Your task to perform on an android device: Go to network settings Image 0: 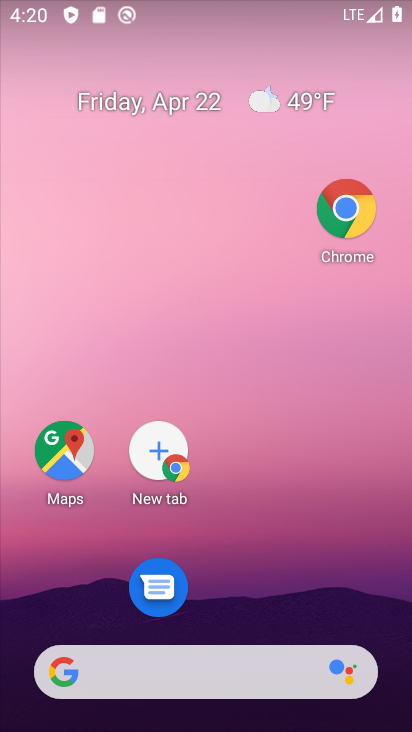
Step 0: drag from (255, 611) to (223, 187)
Your task to perform on an android device: Go to network settings Image 1: 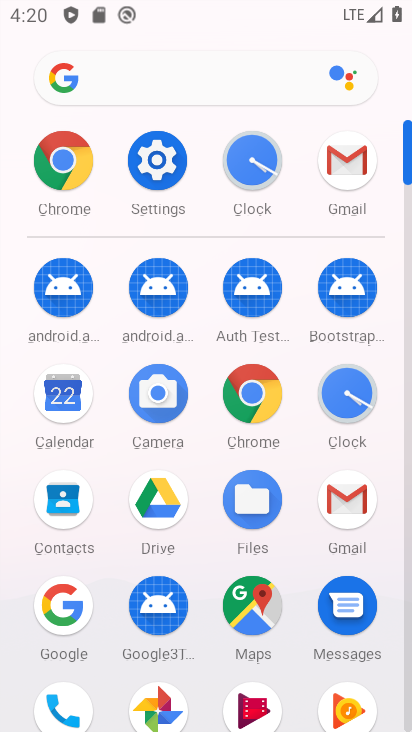
Step 1: click (165, 150)
Your task to perform on an android device: Go to network settings Image 2: 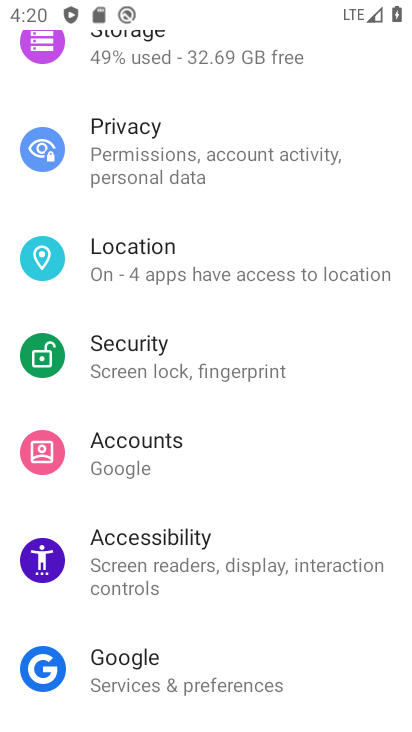
Step 2: drag from (179, 142) to (209, 705)
Your task to perform on an android device: Go to network settings Image 3: 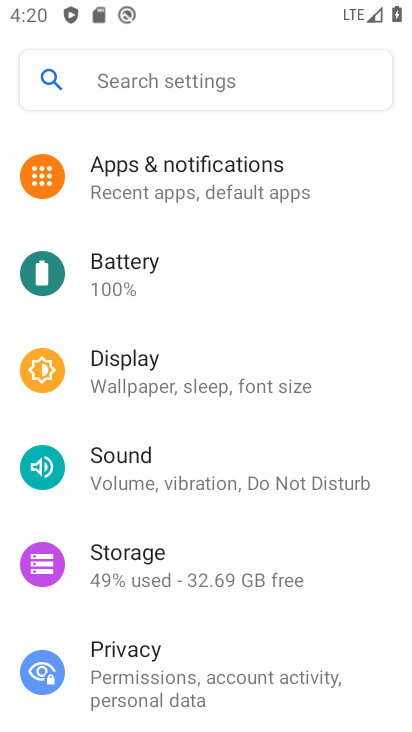
Step 3: drag from (259, 182) to (216, 724)
Your task to perform on an android device: Go to network settings Image 4: 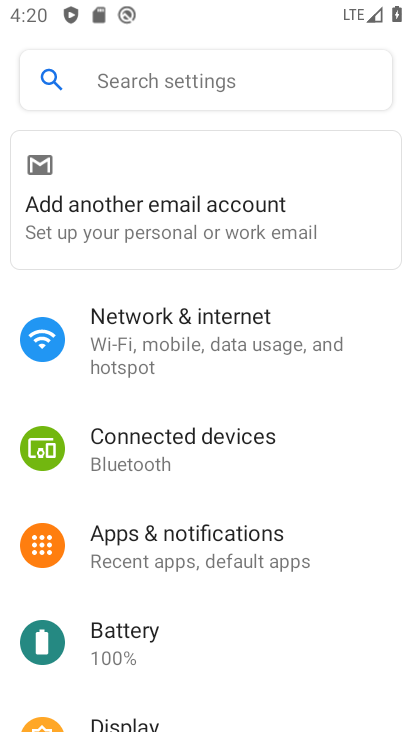
Step 4: click (141, 343)
Your task to perform on an android device: Go to network settings Image 5: 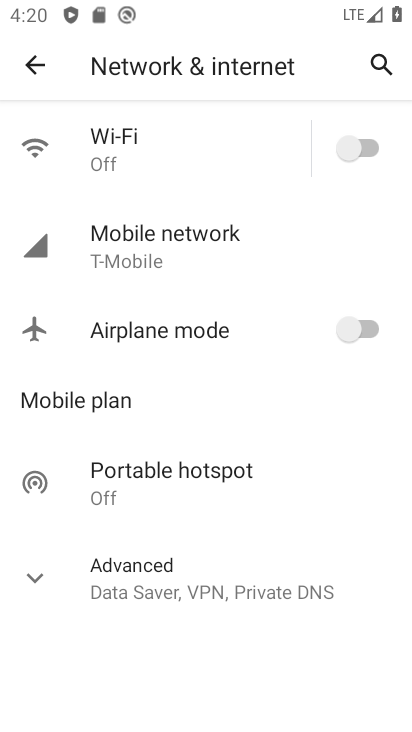
Step 5: task complete